Your task to perform on an android device: toggle wifi Image 0: 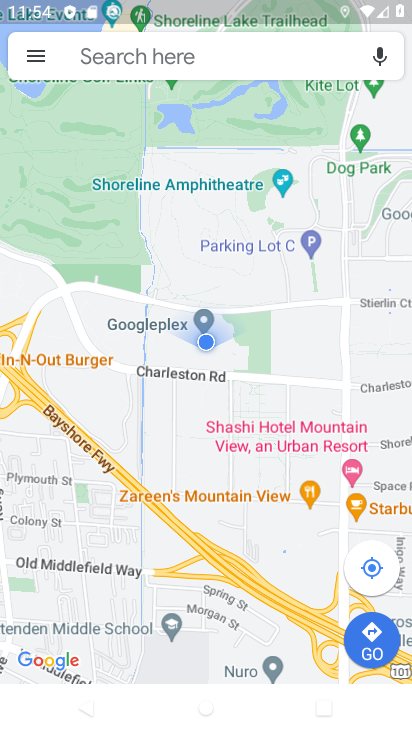
Step 0: press home button
Your task to perform on an android device: toggle wifi Image 1: 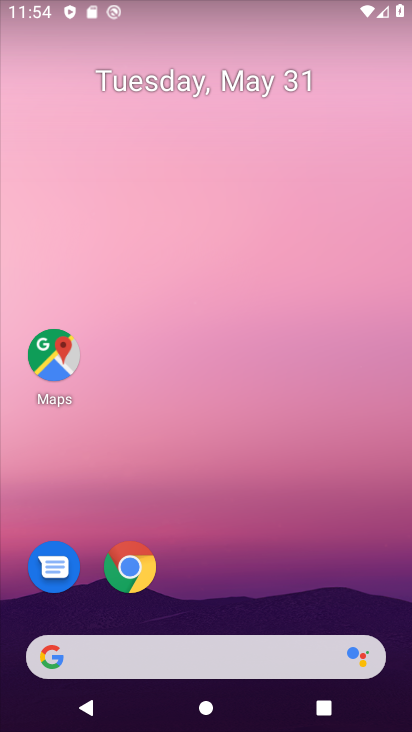
Step 1: drag from (228, 600) to (249, 118)
Your task to perform on an android device: toggle wifi Image 2: 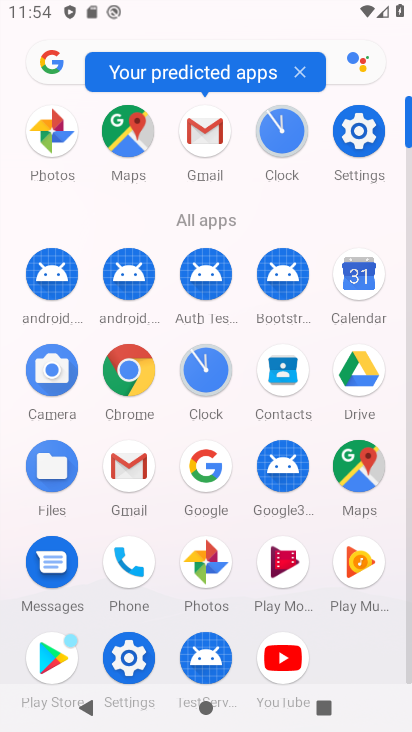
Step 2: click (363, 141)
Your task to perform on an android device: toggle wifi Image 3: 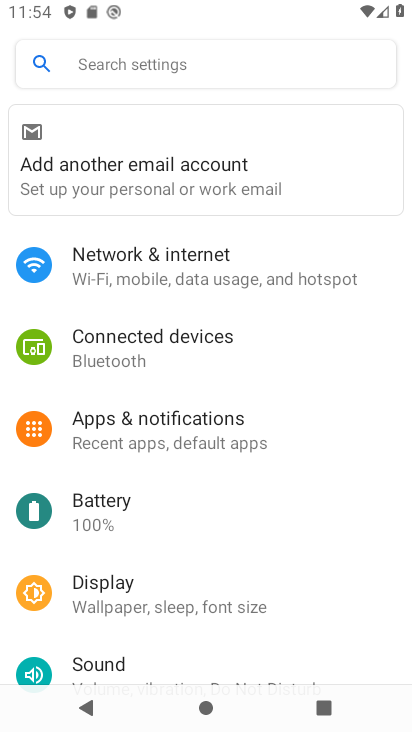
Step 3: click (260, 269)
Your task to perform on an android device: toggle wifi Image 4: 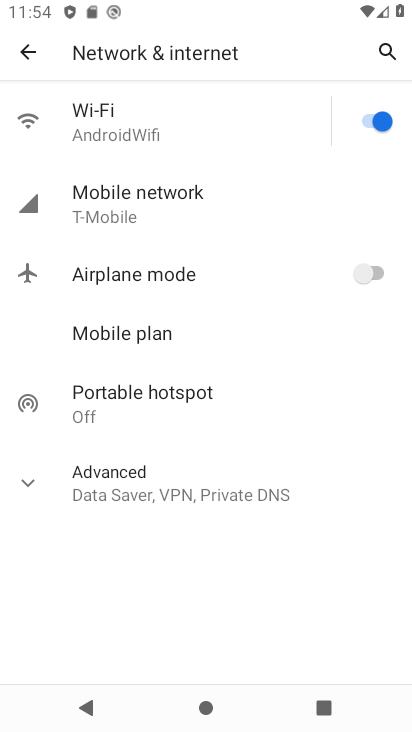
Step 4: click (357, 124)
Your task to perform on an android device: toggle wifi Image 5: 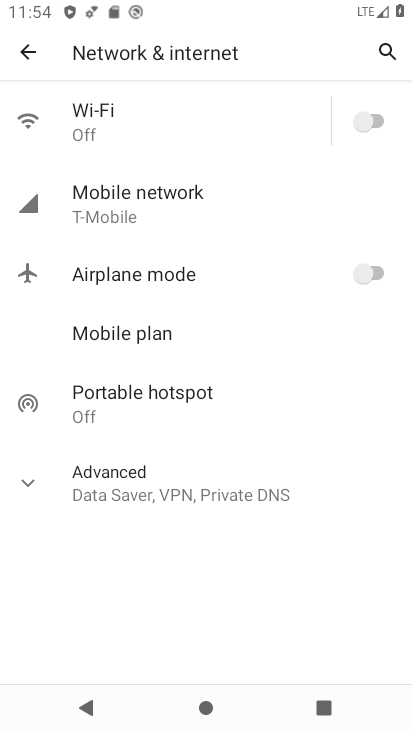
Step 5: task complete